Your task to perform on an android device: Open Google Image 0: 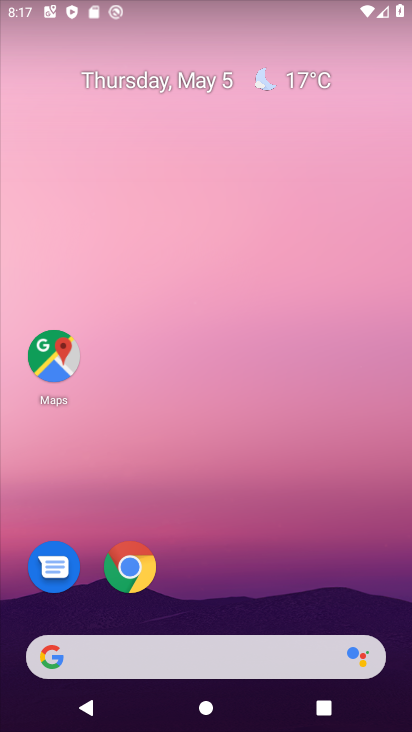
Step 0: click (193, 656)
Your task to perform on an android device: Open Google Image 1: 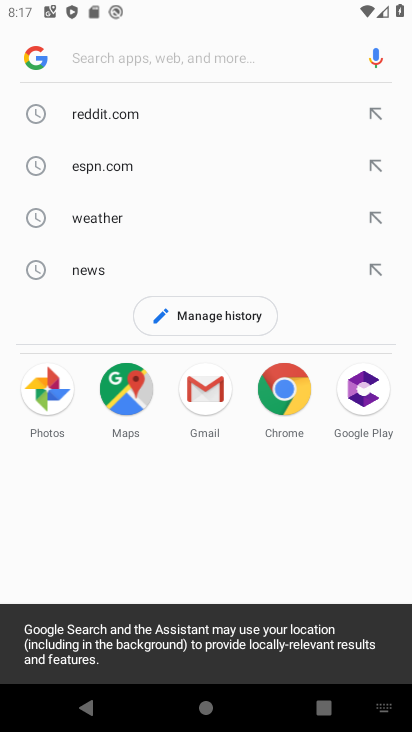
Step 1: click (36, 58)
Your task to perform on an android device: Open Google Image 2: 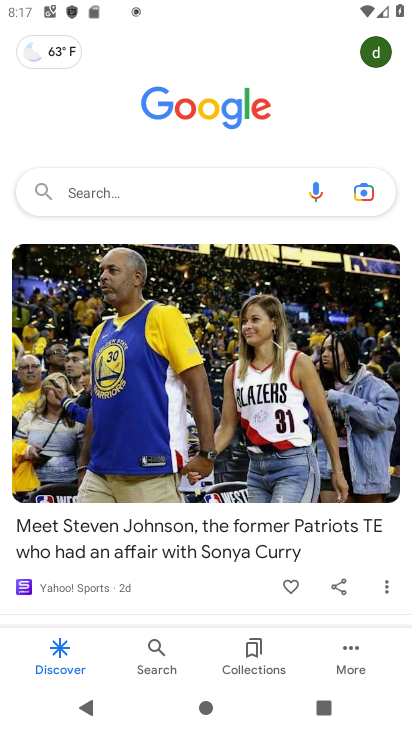
Step 2: task complete